Your task to perform on an android device: Go to network settings Image 0: 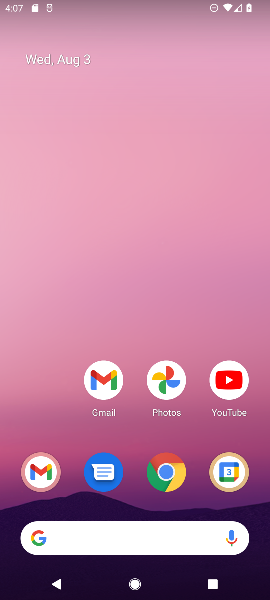
Step 0: drag from (206, 495) to (39, 15)
Your task to perform on an android device: Go to network settings Image 1: 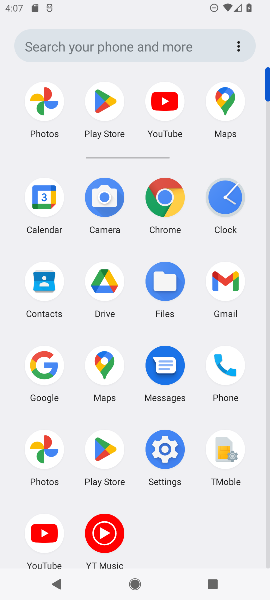
Step 1: click (152, 461)
Your task to perform on an android device: Go to network settings Image 2: 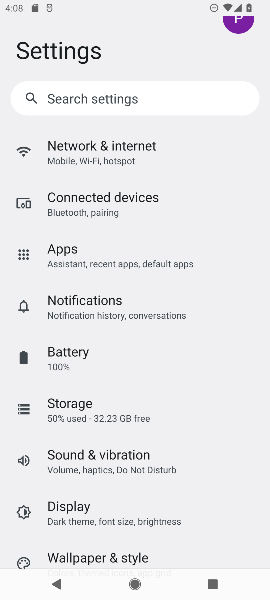
Step 2: click (64, 150)
Your task to perform on an android device: Go to network settings Image 3: 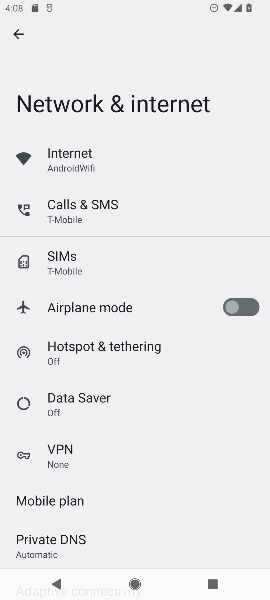
Step 3: task complete